Your task to perform on an android device: turn on the 12-hour format for clock Image 0: 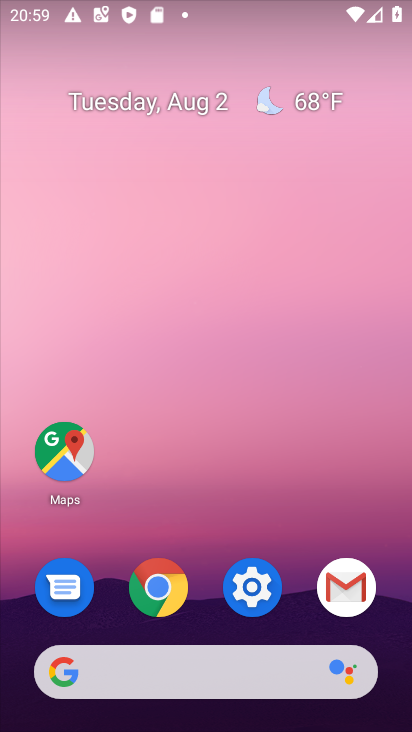
Step 0: drag from (273, 661) to (225, 262)
Your task to perform on an android device: turn on the 12-hour format for clock Image 1: 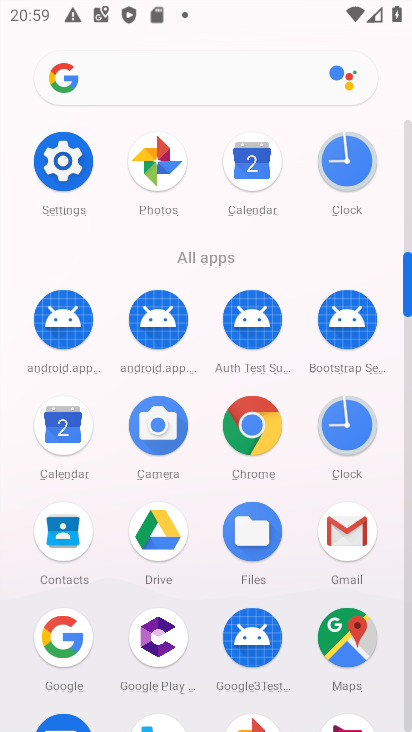
Step 1: click (351, 174)
Your task to perform on an android device: turn on the 12-hour format for clock Image 2: 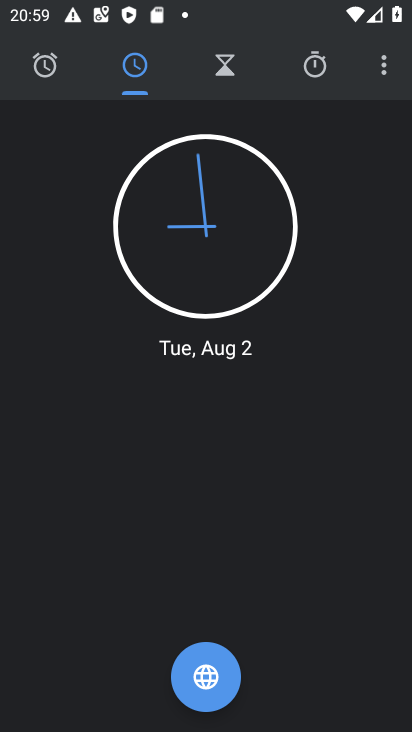
Step 2: click (386, 77)
Your task to perform on an android device: turn on the 12-hour format for clock Image 3: 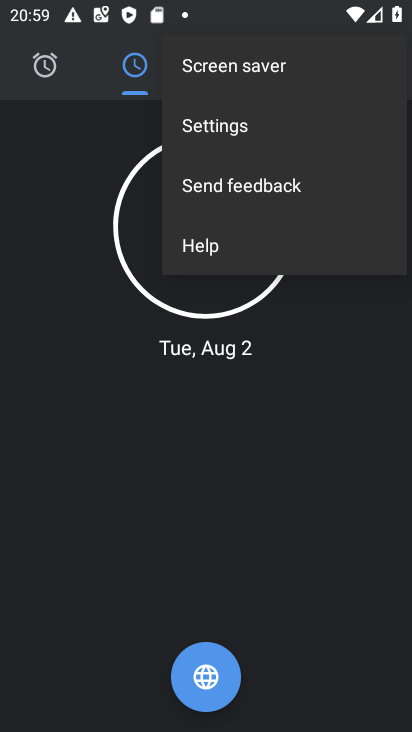
Step 3: click (308, 118)
Your task to perform on an android device: turn on the 12-hour format for clock Image 4: 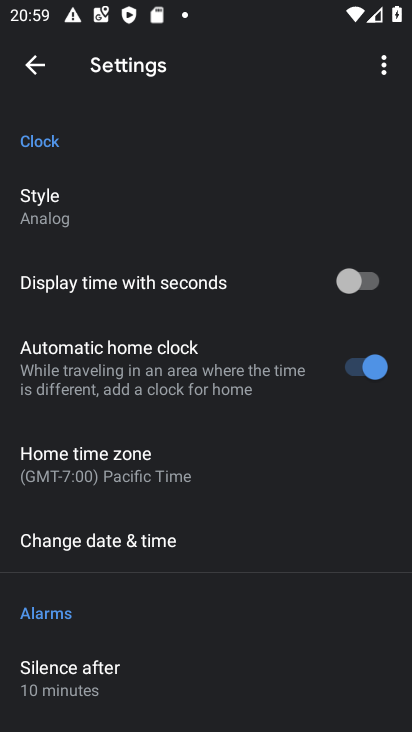
Step 4: click (107, 542)
Your task to perform on an android device: turn on the 12-hour format for clock Image 5: 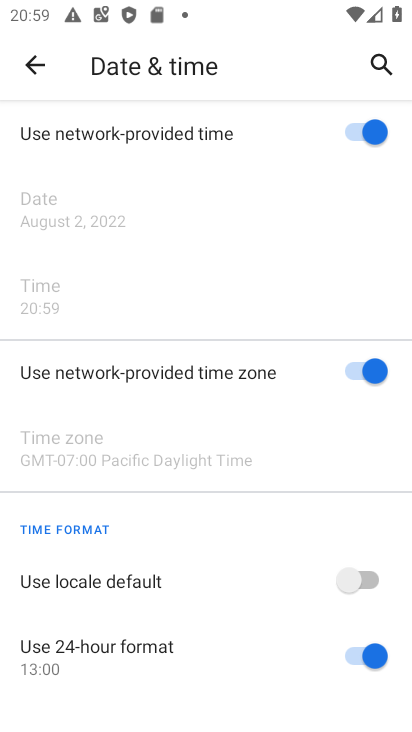
Step 5: click (356, 656)
Your task to perform on an android device: turn on the 12-hour format for clock Image 6: 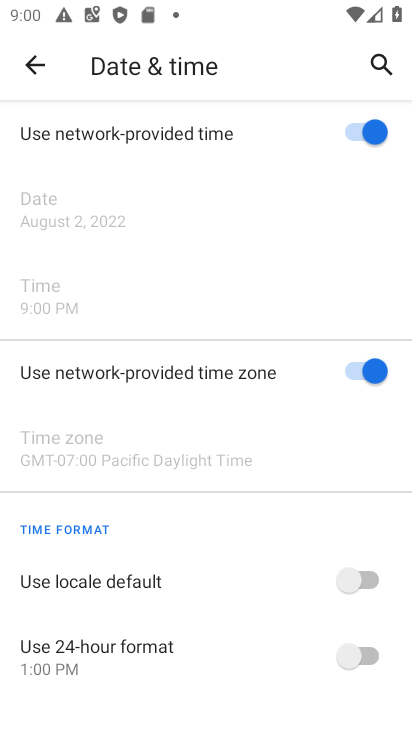
Step 6: task complete